Your task to perform on an android device: Turn off the flashlight Image 0: 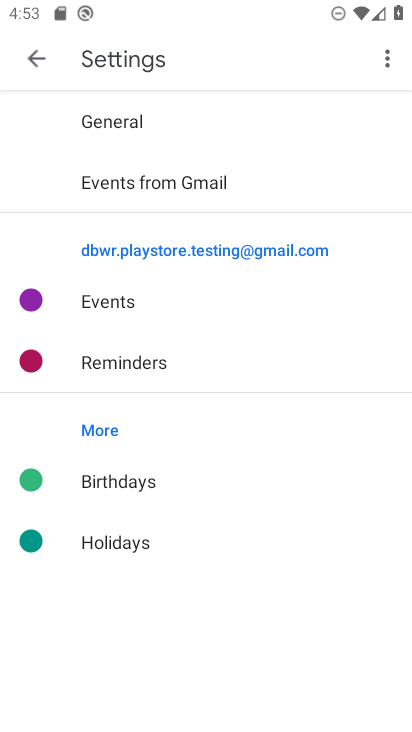
Step 0: press home button
Your task to perform on an android device: Turn off the flashlight Image 1: 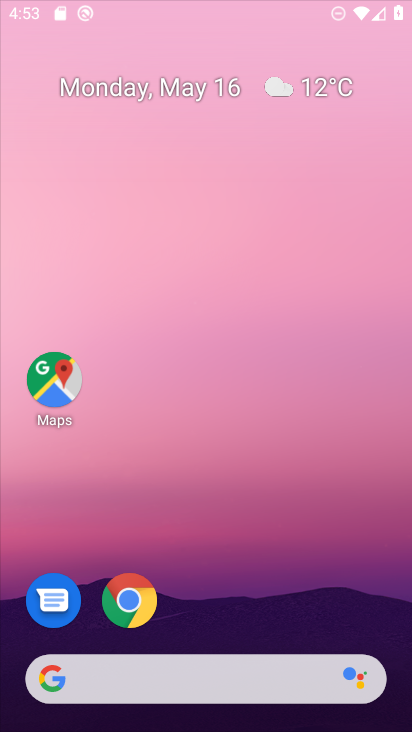
Step 1: task complete